Your task to perform on an android device: Open my contact list Image 0: 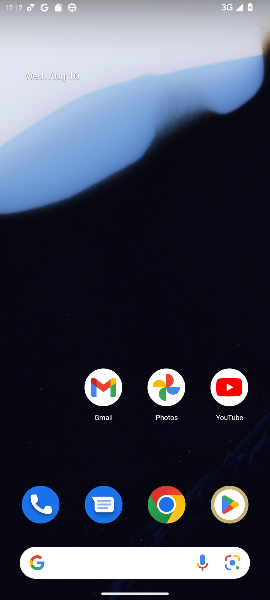
Step 0: drag from (130, 515) to (194, 121)
Your task to perform on an android device: Open my contact list Image 1: 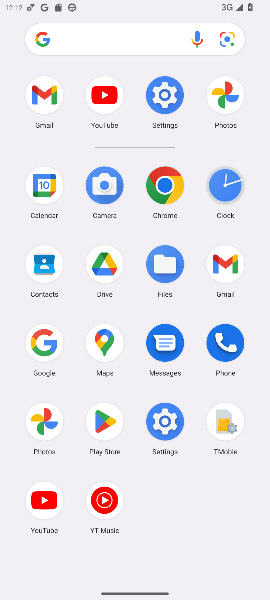
Step 1: click (41, 264)
Your task to perform on an android device: Open my contact list Image 2: 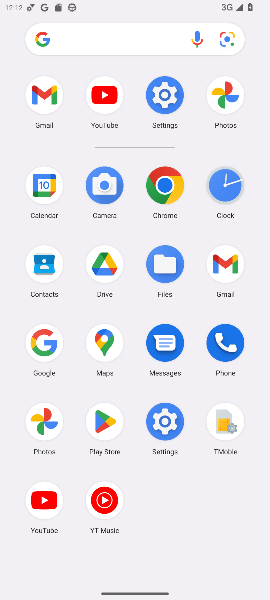
Step 2: click (44, 264)
Your task to perform on an android device: Open my contact list Image 3: 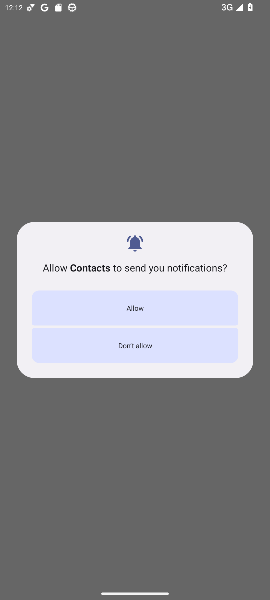
Step 3: click (129, 310)
Your task to perform on an android device: Open my contact list Image 4: 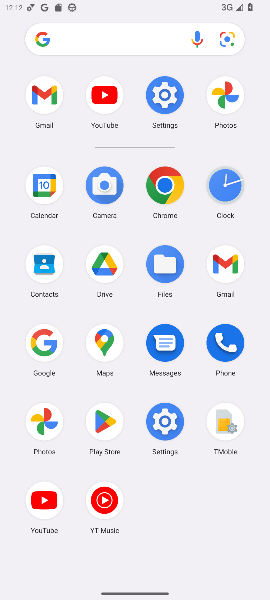
Step 4: click (27, 259)
Your task to perform on an android device: Open my contact list Image 5: 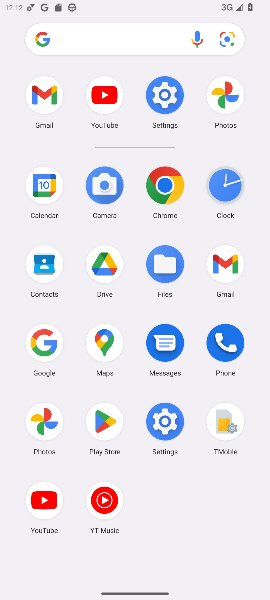
Step 5: click (44, 276)
Your task to perform on an android device: Open my contact list Image 6: 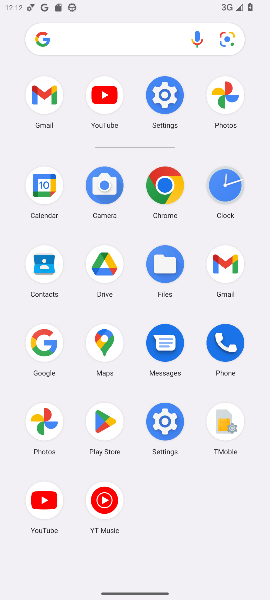
Step 6: click (42, 271)
Your task to perform on an android device: Open my contact list Image 7: 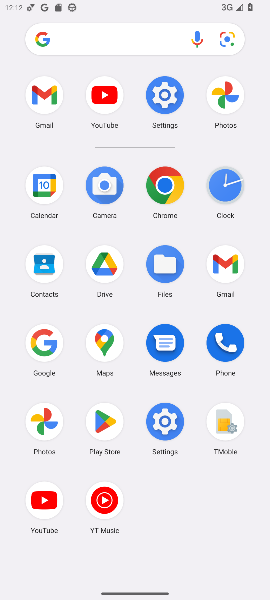
Step 7: click (48, 271)
Your task to perform on an android device: Open my contact list Image 8: 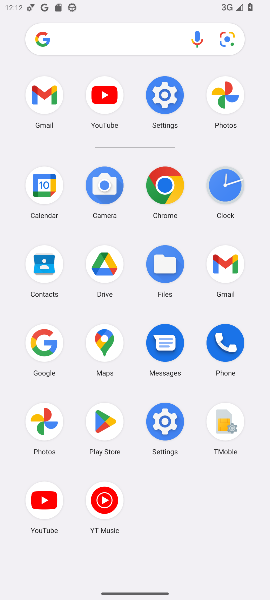
Step 8: task complete